Your task to perform on an android device: turn on the 24-hour format for clock Image 0: 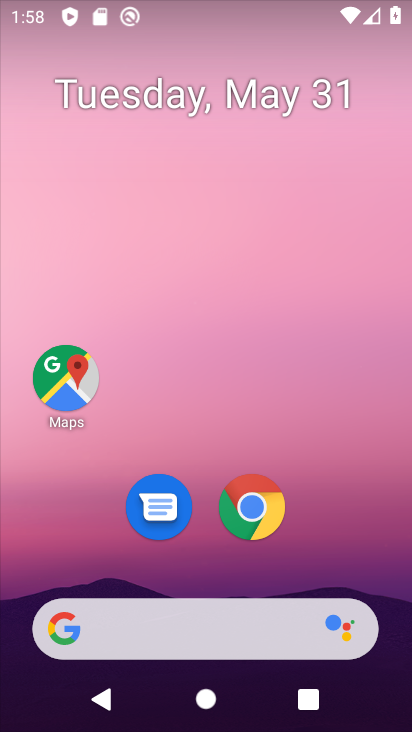
Step 0: drag from (199, 562) to (247, 118)
Your task to perform on an android device: turn on the 24-hour format for clock Image 1: 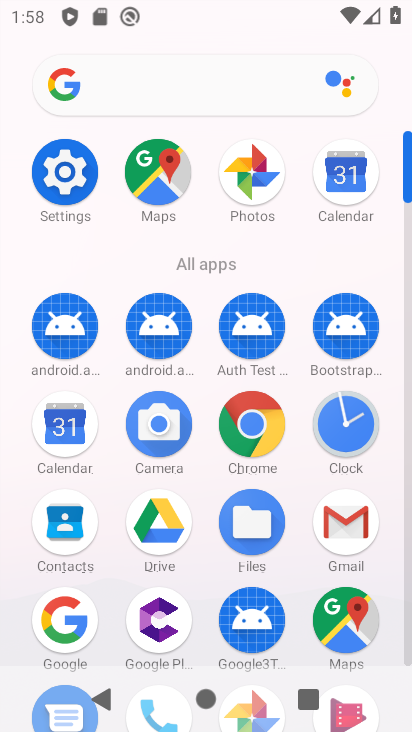
Step 1: click (335, 429)
Your task to perform on an android device: turn on the 24-hour format for clock Image 2: 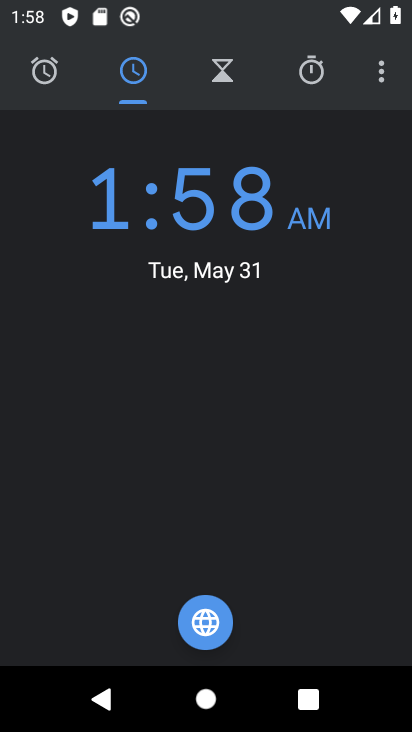
Step 2: click (393, 77)
Your task to perform on an android device: turn on the 24-hour format for clock Image 3: 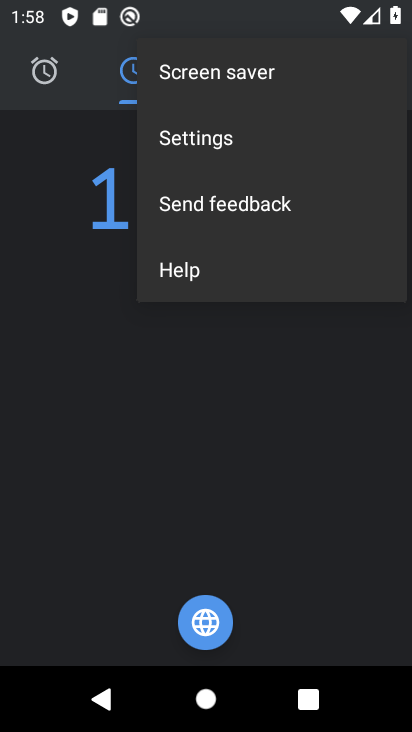
Step 3: click (206, 150)
Your task to perform on an android device: turn on the 24-hour format for clock Image 4: 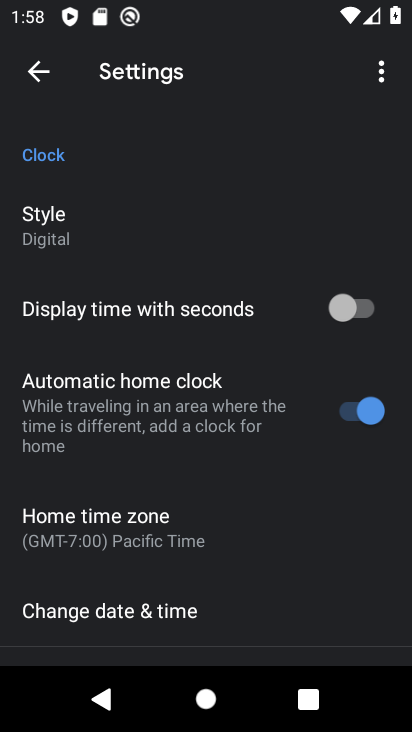
Step 4: drag from (150, 583) to (208, 234)
Your task to perform on an android device: turn on the 24-hour format for clock Image 5: 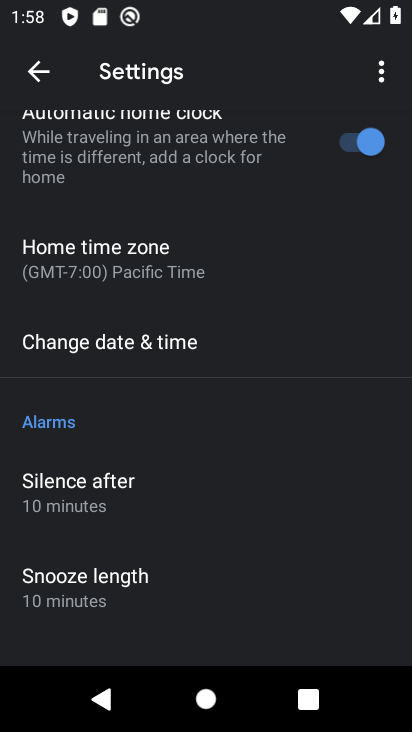
Step 5: drag from (172, 165) to (150, 618)
Your task to perform on an android device: turn on the 24-hour format for clock Image 6: 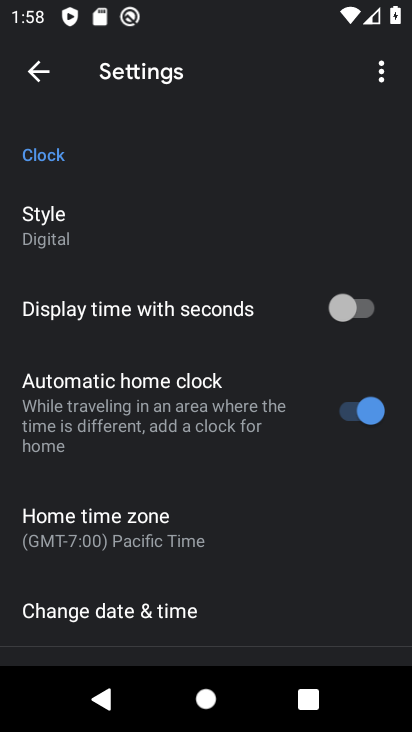
Step 6: drag from (107, 562) to (223, 117)
Your task to perform on an android device: turn on the 24-hour format for clock Image 7: 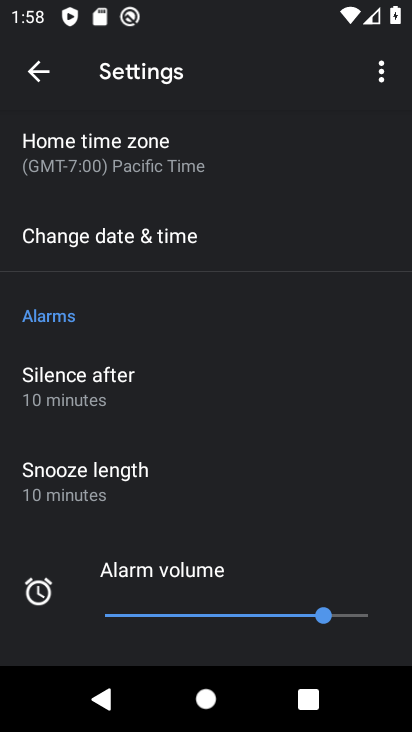
Step 7: drag from (184, 410) to (212, 144)
Your task to perform on an android device: turn on the 24-hour format for clock Image 8: 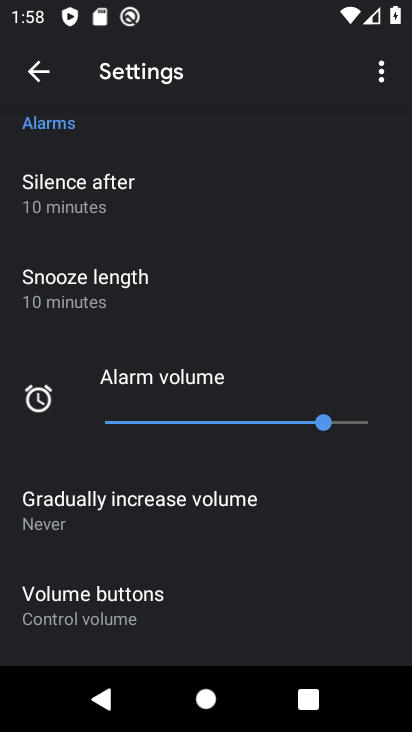
Step 8: drag from (150, 605) to (215, 223)
Your task to perform on an android device: turn on the 24-hour format for clock Image 9: 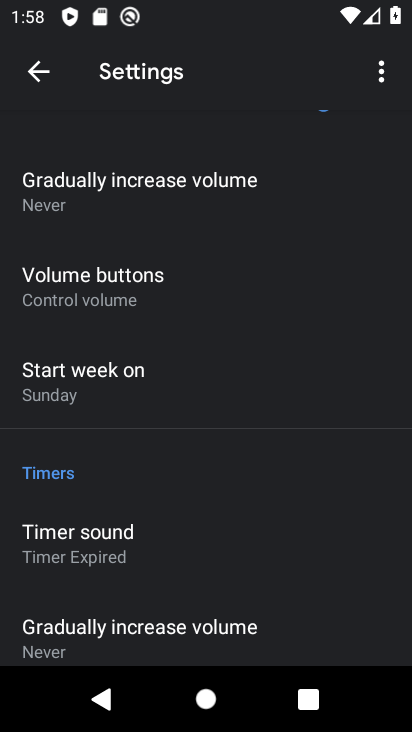
Step 9: drag from (151, 622) to (216, 196)
Your task to perform on an android device: turn on the 24-hour format for clock Image 10: 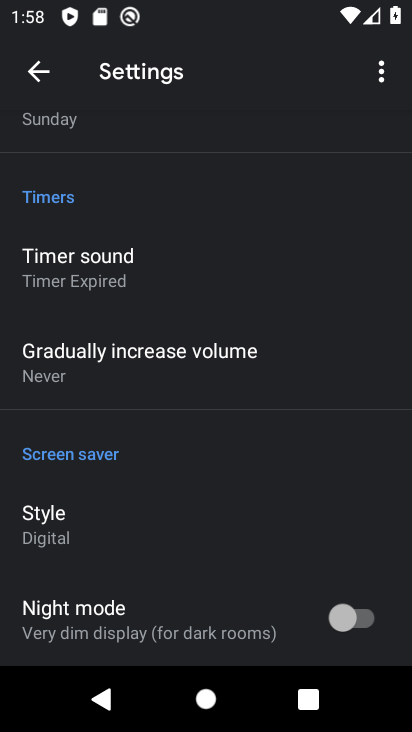
Step 10: drag from (141, 559) to (200, 310)
Your task to perform on an android device: turn on the 24-hour format for clock Image 11: 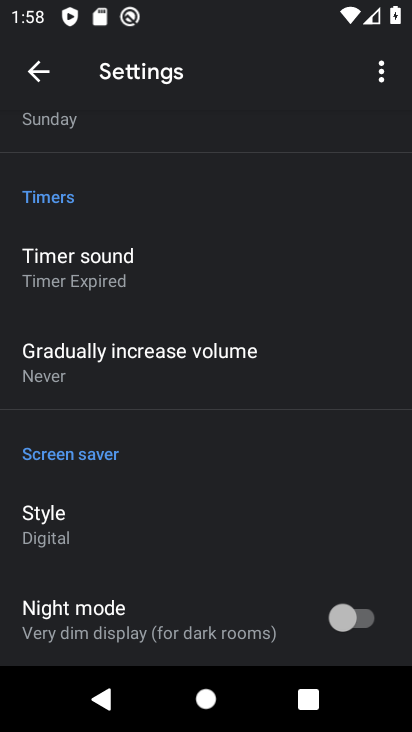
Step 11: drag from (185, 544) to (222, 64)
Your task to perform on an android device: turn on the 24-hour format for clock Image 12: 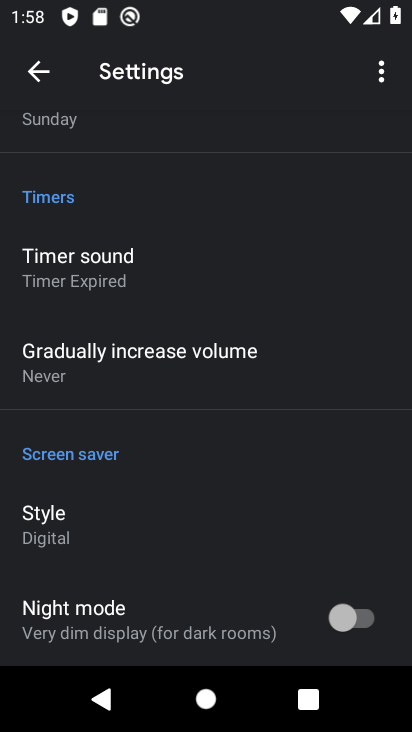
Step 12: drag from (236, 199) to (211, 616)
Your task to perform on an android device: turn on the 24-hour format for clock Image 13: 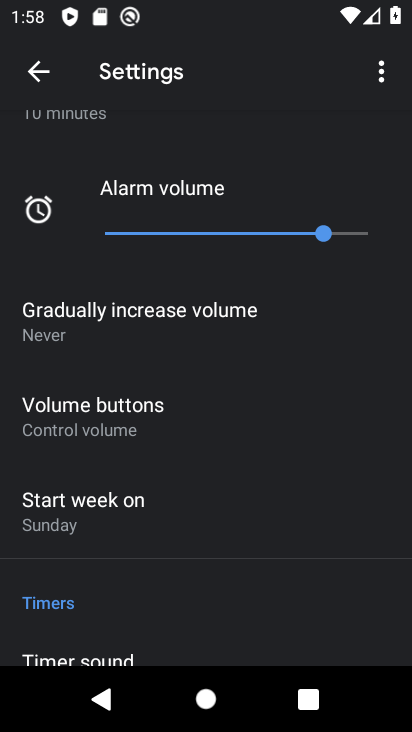
Step 13: drag from (203, 185) to (184, 617)
Your task to perform on an android device: turn on the 24-hour format for clock Image 14: 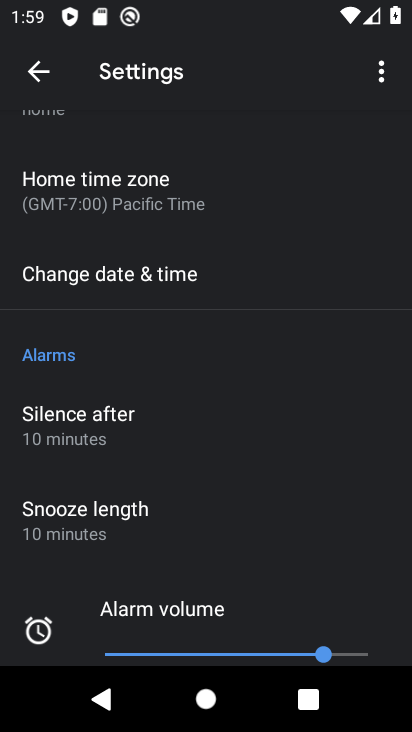
Step 14: click (133, 268)
Your task to perform on an android device: turn on the 24-hour format for clock Image 15: 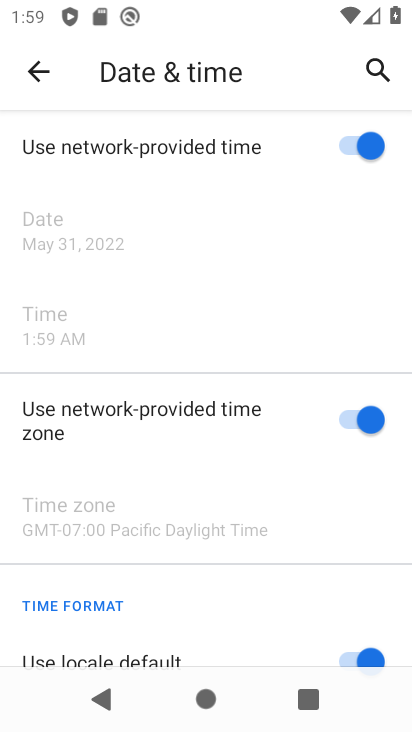
Step 15: drag from (187, 530) to (230, 148)
Your task to perform on an android device: turn on the 24-hour format for clock Image 16: 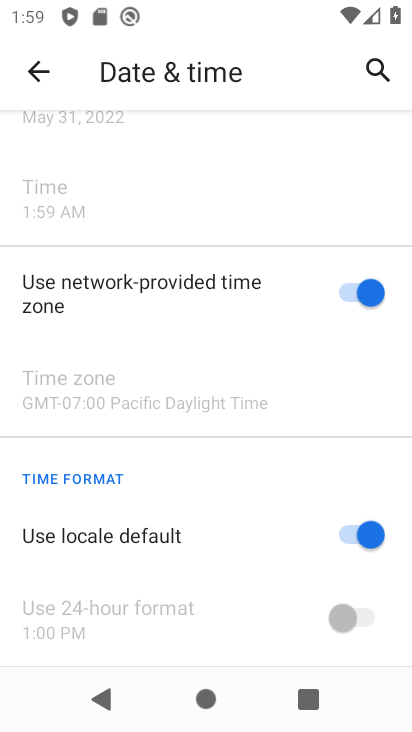
Step 16: click (359, 524)
Your task to perform on an android device: turn on the 24-hour format for clock Image 17: 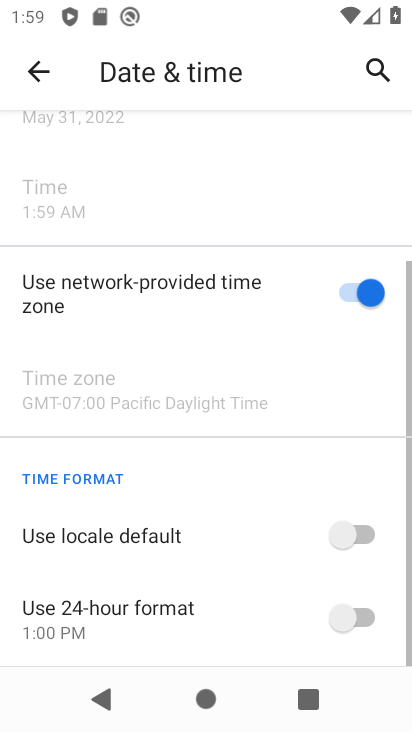
Step 17: click (361, 622)
Your task to perform on an android device: turn on the 24-hour format for clock Image 18: 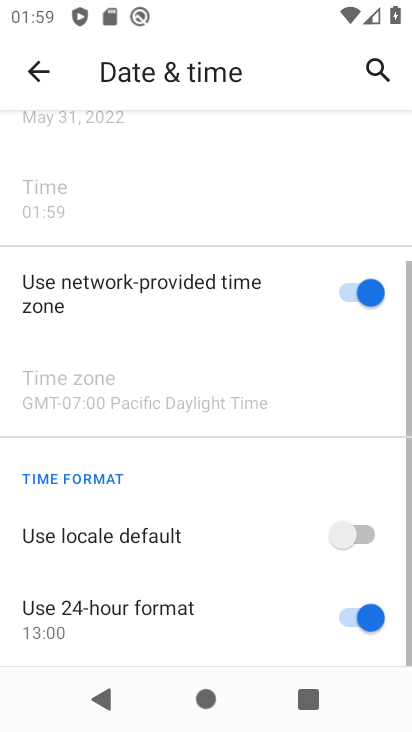
Step 18: task complete